Your task to perform on an android device: Show me productivity apps on the Play Store Image 0: 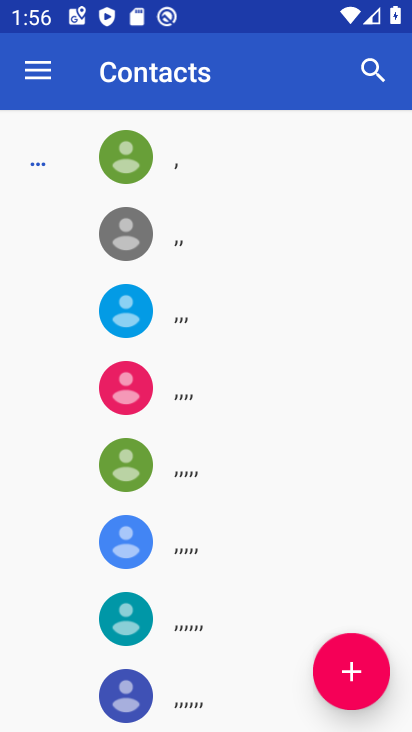
Step 0: press home button
Your task to perform on an android device: Show me productivity apps on the Play Store Image 1: 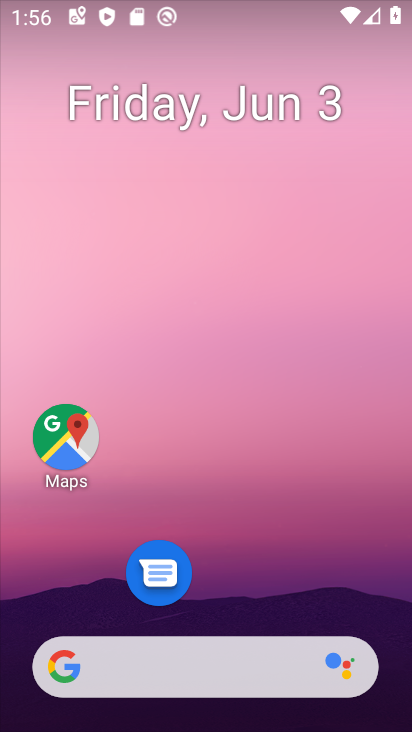
Step 1: drag from (322, 683) to (368, 110)
Your task to perform on an android device: Show me productivity apps on the Play Store Image 2: 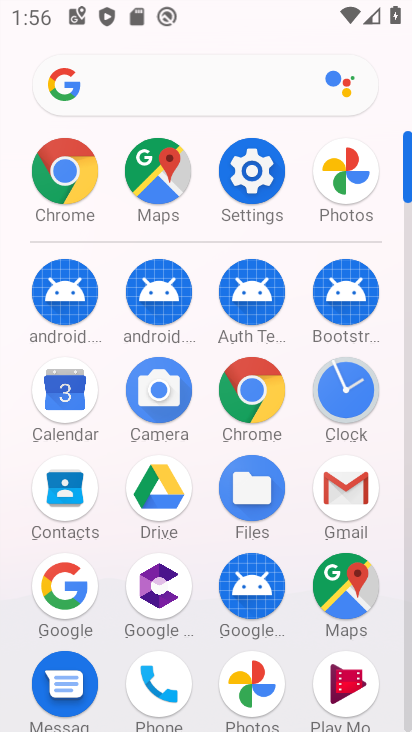
Step 2: drag from (311, 684) to (319, 315)
Your task to perform on an android device: Show me productivity apps on the Play Store Image 3: 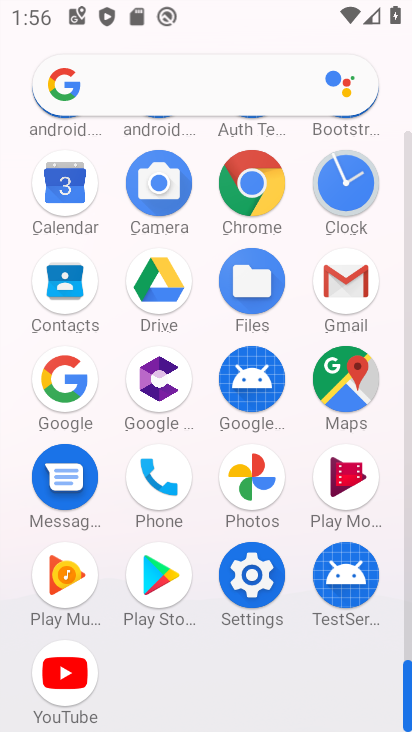
Step 3: click (156, 576)
Your task to perform on an android device: Show me productivity apps on the Play Store Image 4: 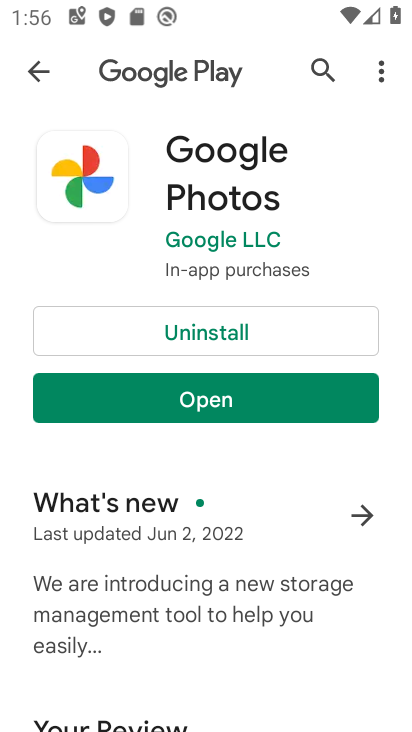
Step 4: press back button
Your task to perform on an android device: Show me productivity apps on the Play Store Image 5: 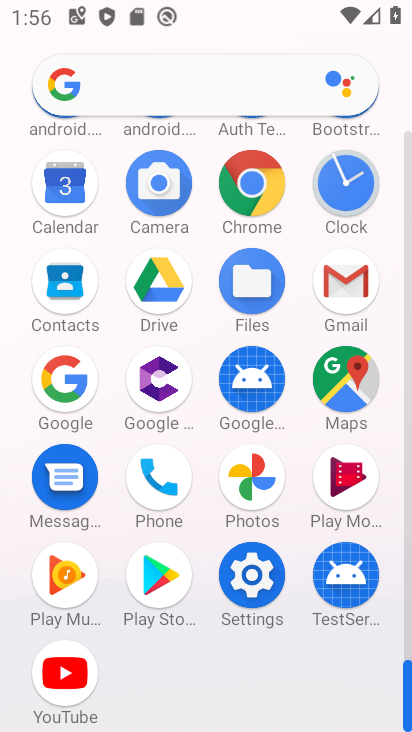
Step 5: click (164, 579)
Your task to perform on an android device: Show me productivity apps on the Play Store Image 6: 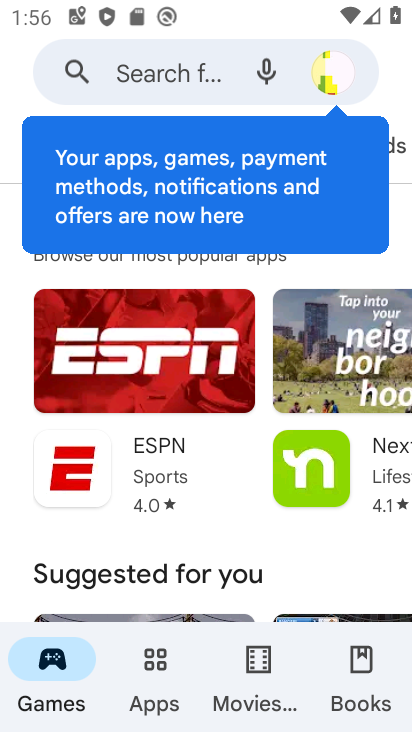
Step 6: drag from (277, 591) to (338, 53)
Your task to perform on an android device: Show me productivity apps on the Play Store Image 7: 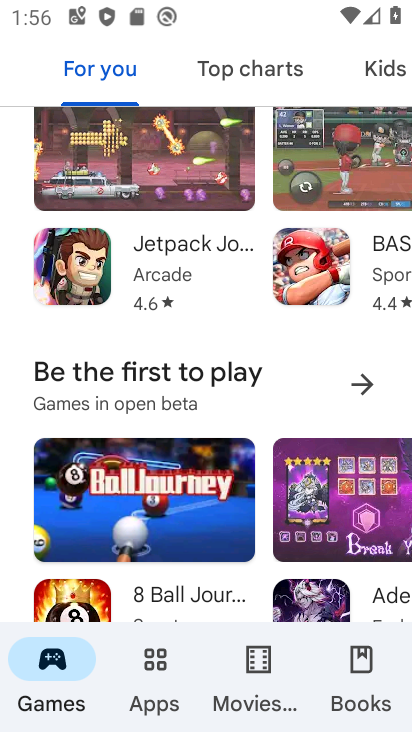
Step 7: drag from (259, 534) to (287, 242)
Your task to perform on an android device: Show me productivity apps on the Play Store Image 8: 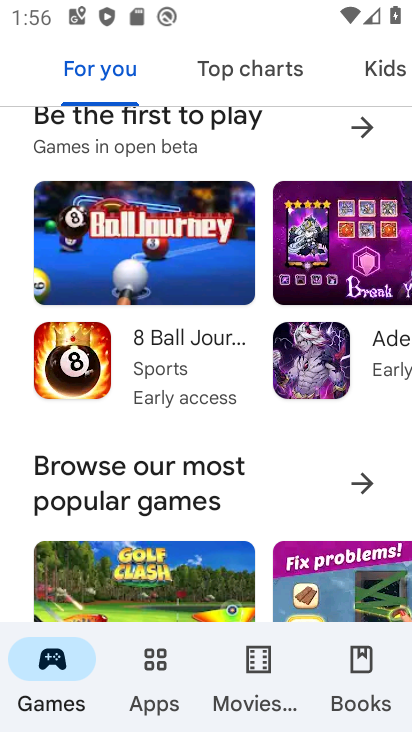
Step 8: click (155, 655)
Your task to perform on an android device: Show me productivity apps on the Play Store Image 9: 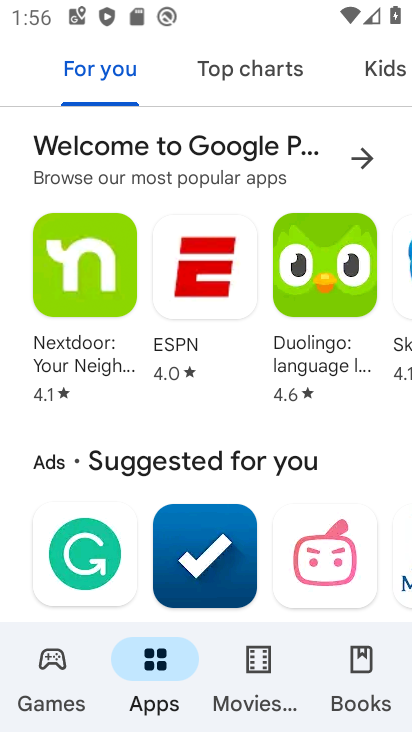
Step 9: drag from (279, 527) to (342, 39)
Your task to perform on an android device: Show me productivity apps on the Play Store Image 10: 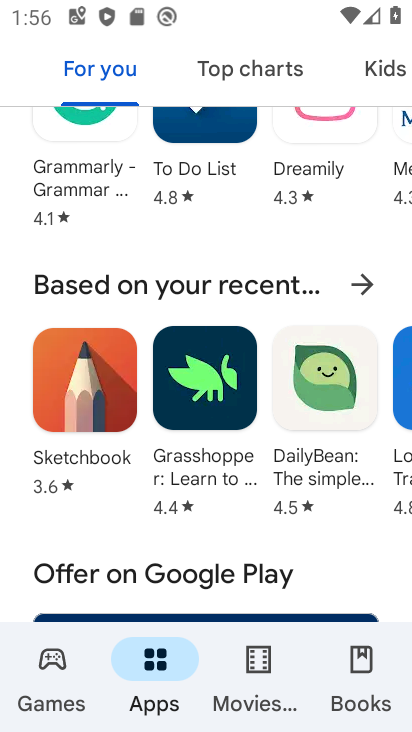
Step 10: drag from (318, 517) to (370, 200)
Your task to perform on an android device: Show me productivity apps on the Play Store Image 11: 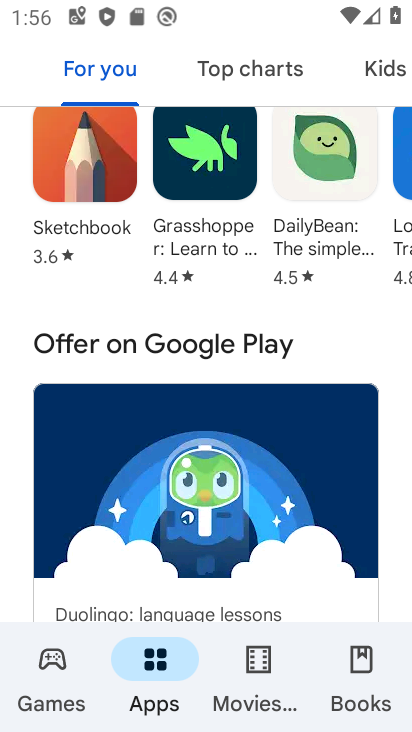
Step 11: drag from (306, 578) to (372, 140)
Your task to perform on an android device: Show me productivity apps on the Play Store Image 12: 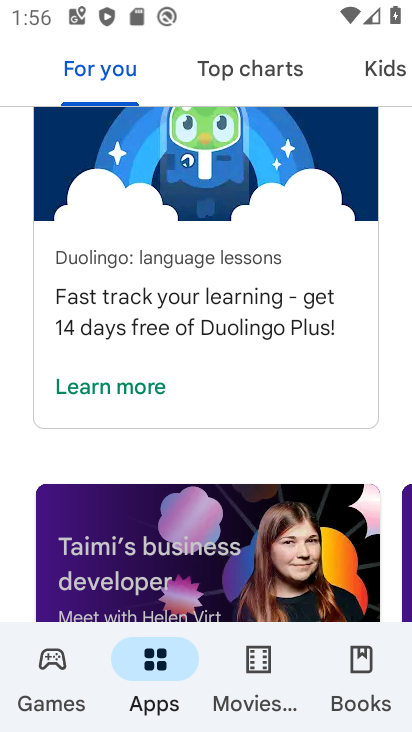
Step 12: drag from (305, 560) to (353, 92)
Your task to perform on an android device: Show me productivity apps on the Play Store Image 13: 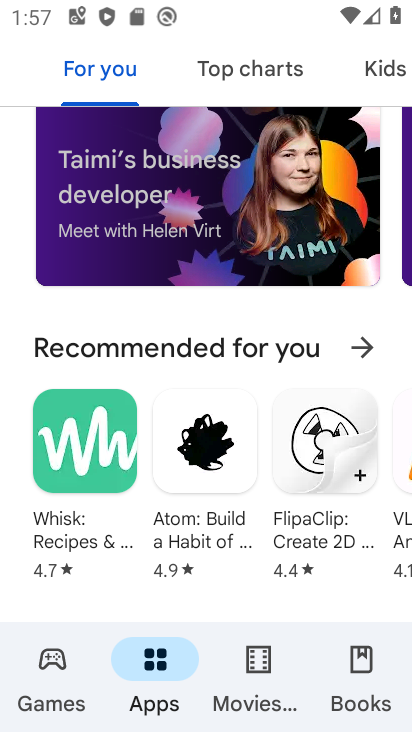
Step 13: drag from (291, 559) to (321, 178)
Your task to perform on an android device: Show me productivity apps on the Play Store Image 14: 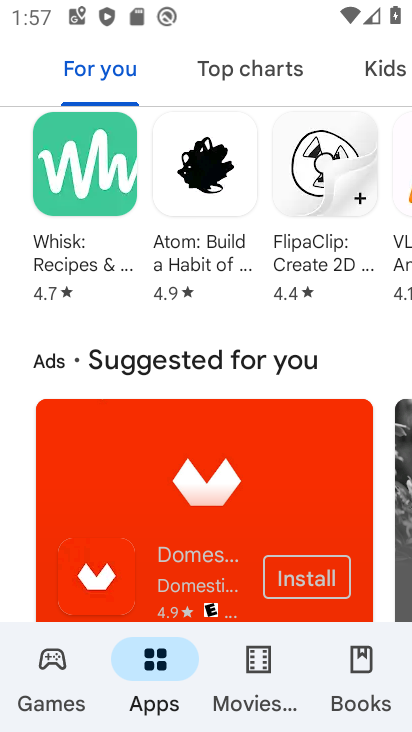
Step 14: drag from (261, 582) to (284, 198)
Your task to perform on an android device: Show me productivity apps on the Play Store Image 15: 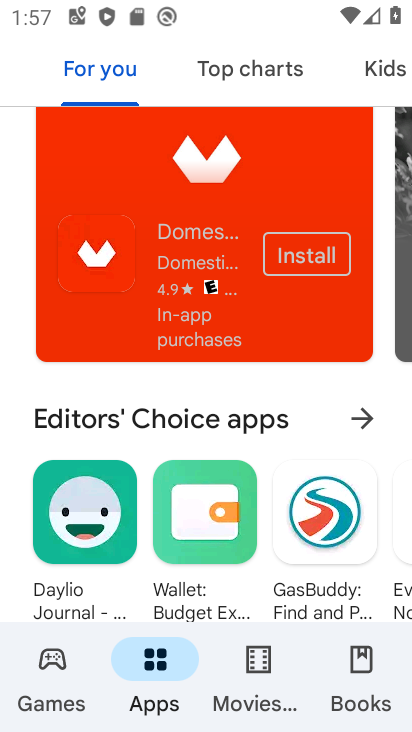
Step 15: drag from (270, 487) to (301, 73)
Your task to perform on an android device: Show me productivity apps on the Play Store Image 16: 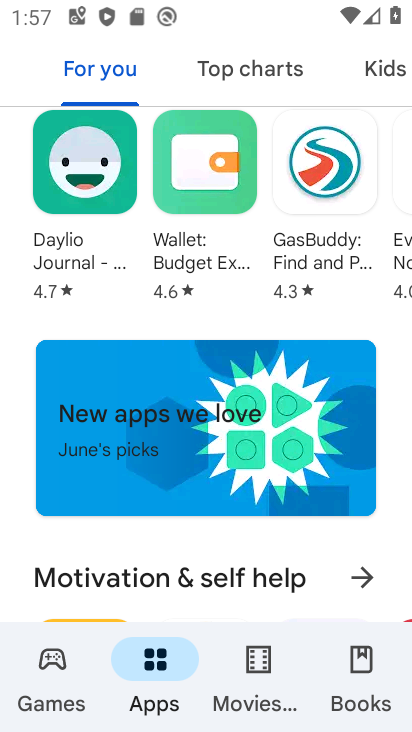
Step 16: drag from (258, 522) to (332, 52)
Your task to perform on an android device: Show me productivity apps on the Play Store Image 17: 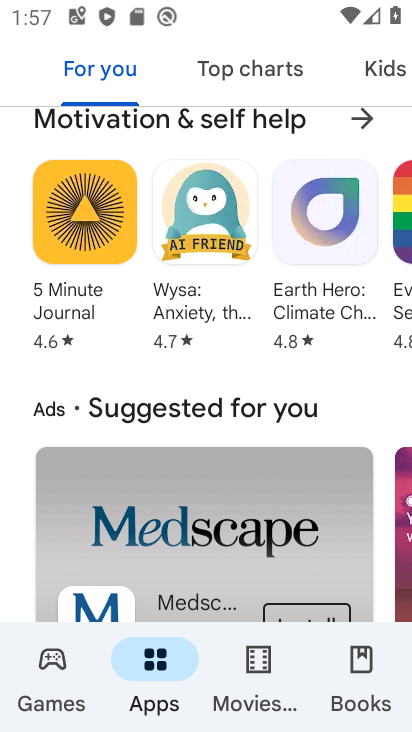
Step 17: drag from (262, 579) to (283, 145)
Your task to perform on an android device: Show me productivity apps on the Play Store Image 18: 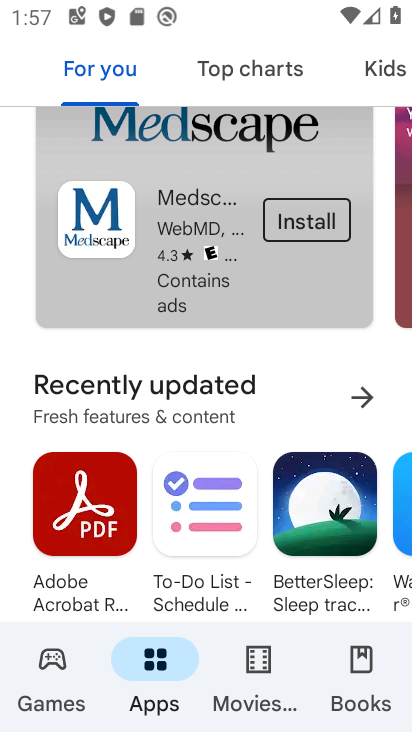
Step 18: drag from (329, 566) to (330, 15)
Your task to perform on an android device: Show me productivity apps on the Play Store Image 19: 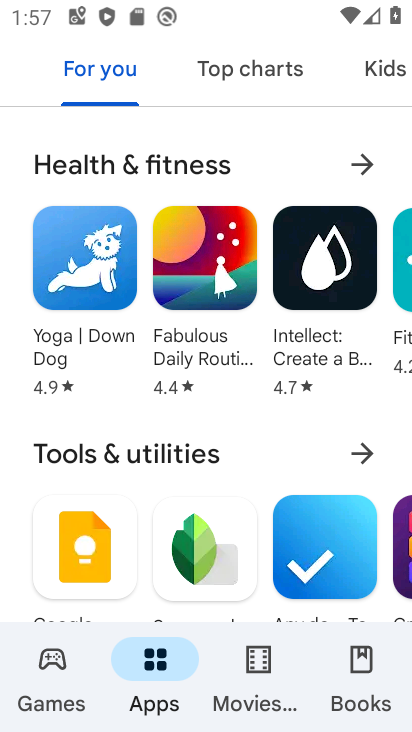
Step 19: drag from (259, 590) to (352, 30)
Your task to perform on an android device: Show me productivity apps on the Play Store Image 20: 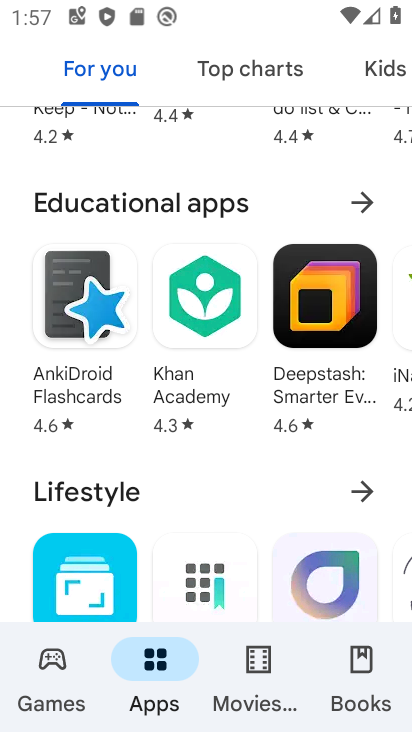
Step 20: drag from (243, 514) to (299, 0)
Your task to perform on an android device: Show me productivity apps on the Play Store Image 21: 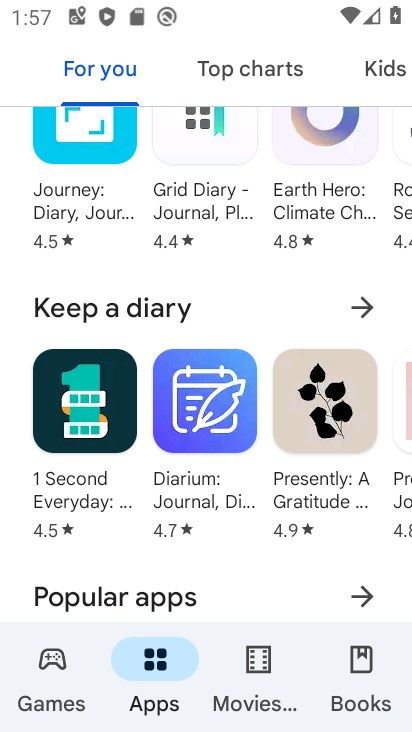
Step 21: drag from (248, 562) to (345, 58)
Your task to perform on an android device: Show me productivity apps on the Play Store Image 22: 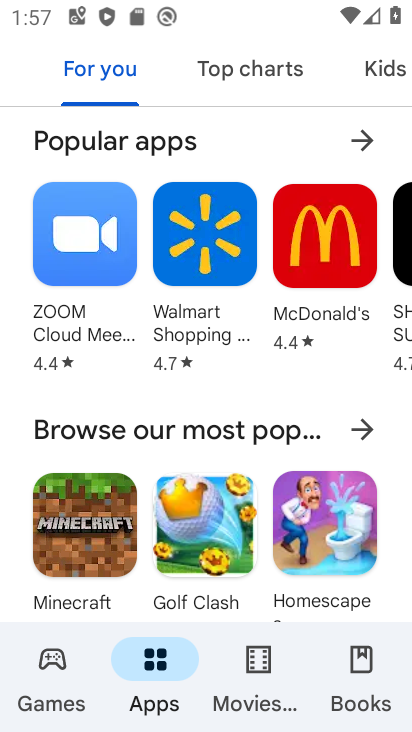
Step 22: drag from (263, 590) to (323, 69)
Your task to perform on an android device: Show me productivity apps on the Play Store Image 23: 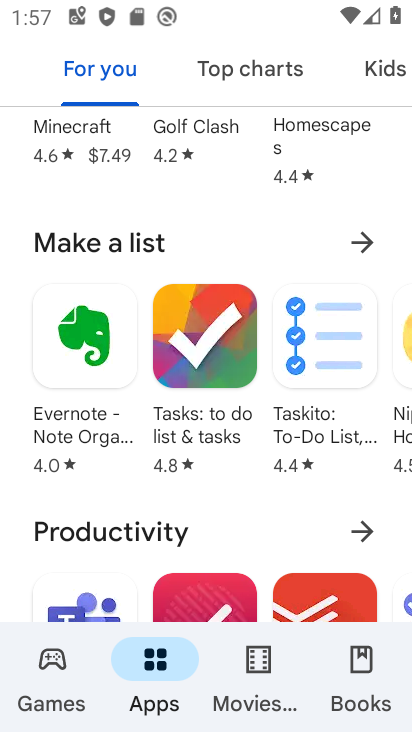
Step 23: click (369, 529)
Your task to perform on an android device: Show me productivity apps on the Play Store Image 24: 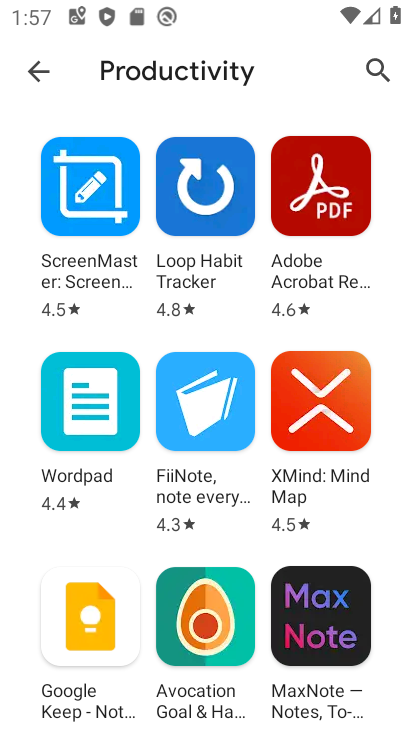
Step 24: task complete